Your task to perform on an android device: turn on the 12-hour format for clock Image 0: 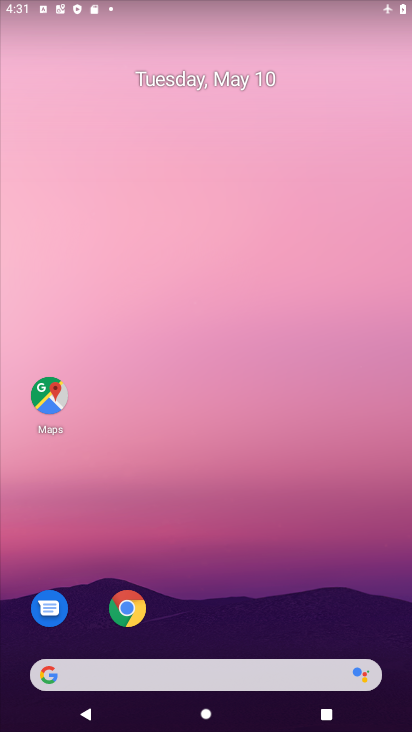
Step 0: drag from (348, 567) to (283, 73)
Your task to perform on an android device: turn on the 12-hour format for clock Image 1: 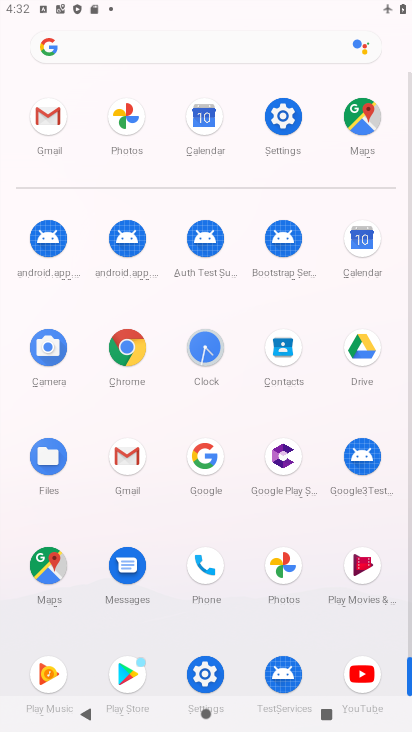
Step 1: click (204, 349)
Your task to perform on an android device: turn on the 12-hour format for clock Image 2: 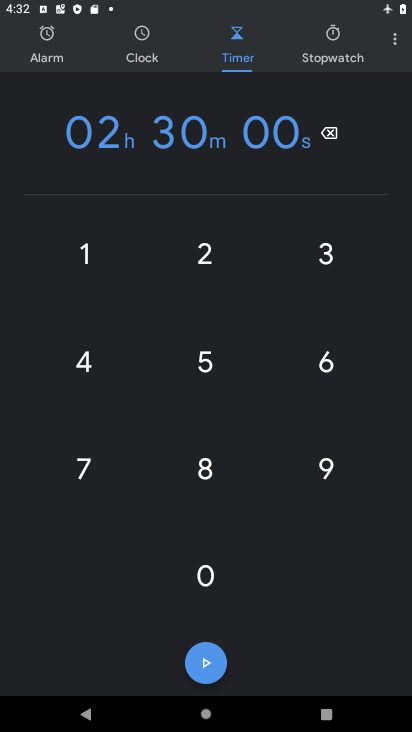
Step 2: click (394, 41)
Your task to perform on an android device: turn on the 12-hour format for clock Image 3: 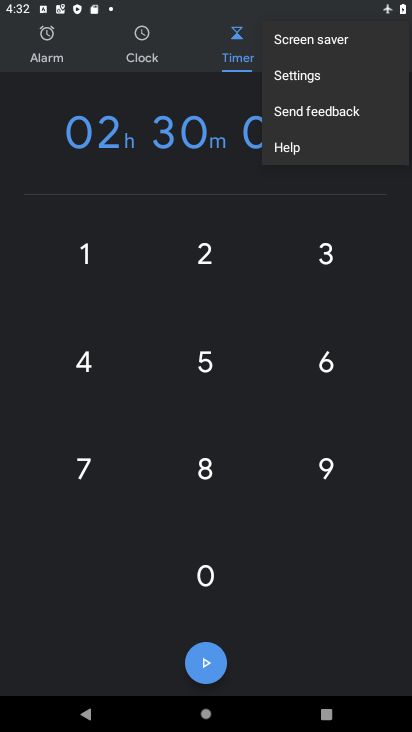
Step 3: click (295, 74)
Your task to perform on an android device: turn on the 12-hour format for clock Image 4: 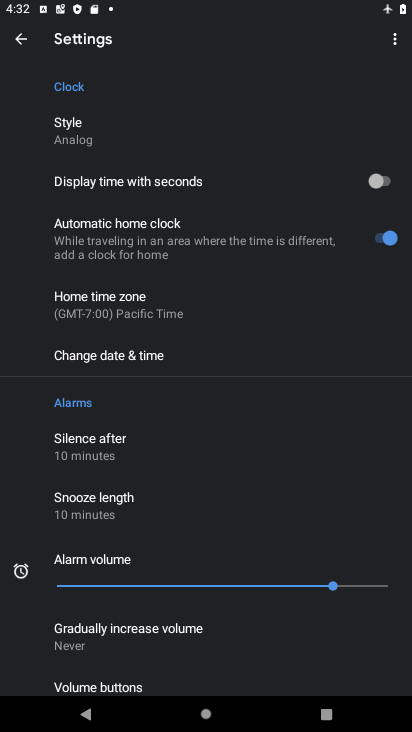
Step 4: click (111, 357)
Your task to perform on an android device: turn on the 12-hour format for clock Image 5: 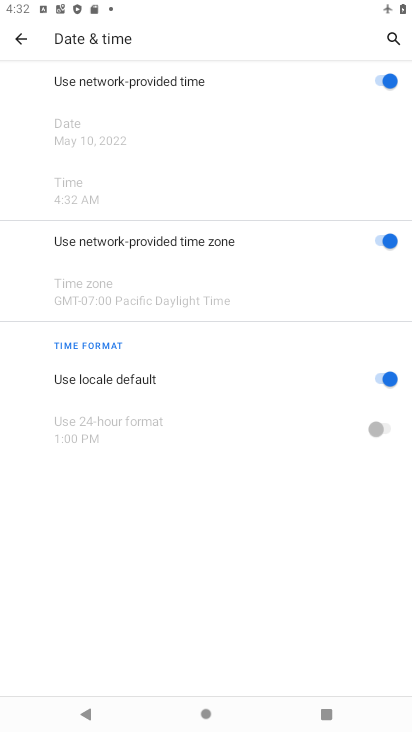
Step 5: task complete